Your task to perform on an android device: Clear the cart on walmart. Search for apple airpods on walmart, select the first entry, add it to the cart, then select checkout. Image 0: 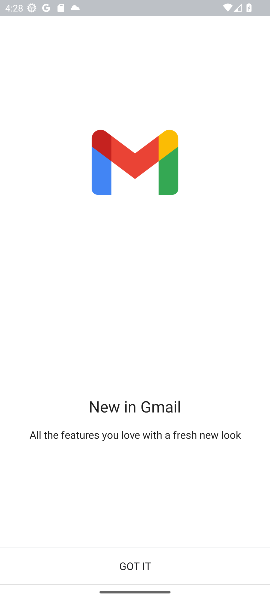
Step 0: press home button
Your task to perform on an android device: Clear the cart on walmart. Search for apple airpods on walmart, select the first entry, add it to the cart, then select checkout. Image 1: 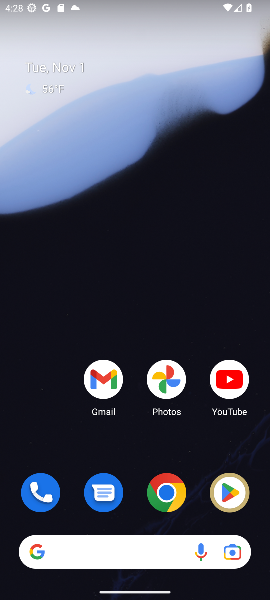
Step 1: click (166, 498)
Your task to perform on an android device: Clear the cart on walmart. Search for apple airpods on walmart, select the first entry, add it to the cart, then select checkout. Image 2: 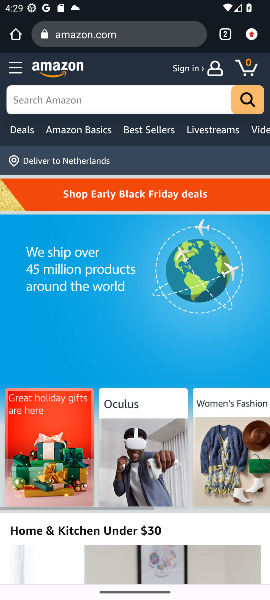
Step 2: click (139, 36)
Your task to perform on an android device: Clear the cart on walmart. Search for apple airpods on walmart, select the first entry, add it to the cart, then select checkout. Image 3: 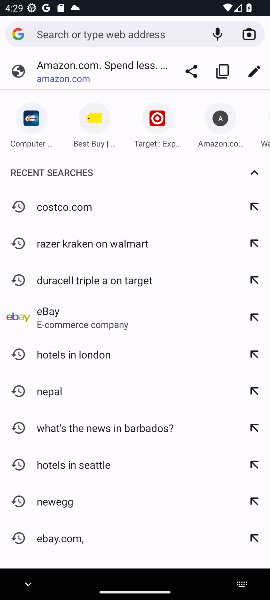
Step 3: type "walmart"
Your task to perform on an android device: Clear the cart on walmart. Search for apple airpods on walmart, select the first entry, add it to the cart, then select checkout. Image 4: 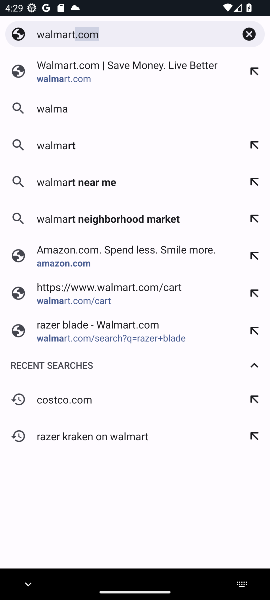
Step 4: type ""
Your task to perform on an android device: Clear the cart on walmart. Search for apple airpods on walmart, select the first entry, add it to the cart, then select checkout. Image 5: 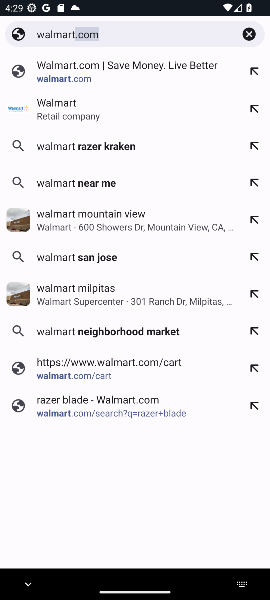
Step 5: press enter
Your task to perform on an android device: Clear the cart on walmart. Search for apple airpods on walmart, select the first entry, add it to the cart, then select checkout. Image 6: 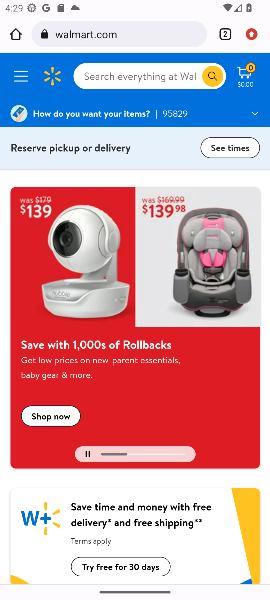
Step 6: click (121, 83)
Your task to perform on an android device: Clear the cart on walmart. Search for apple airpods on walmart, select the first entry, add it to the cart, then select checkout. Image 7: 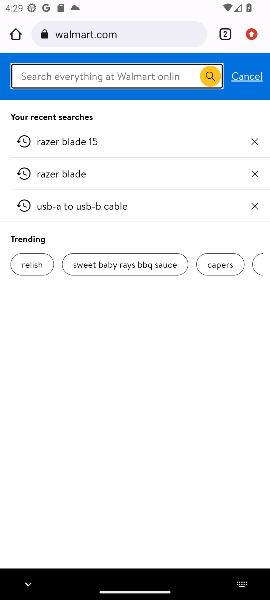
Step 7: click (101, 381)
Your task to perform on an android device: Clear the cart on walmart. Search for apple airpods on walmart, select the first entry, add it to the cart, then select checkout. Image 8: 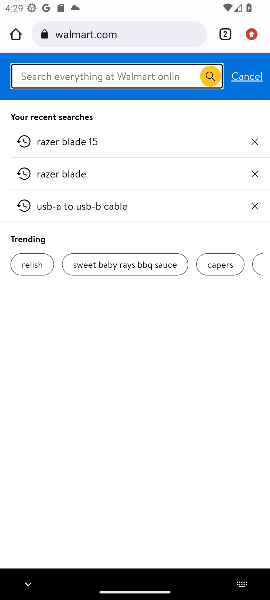
Step 8: type "apple airpods"
Your task to perform on an android device: Clear the cart on walmart. Search for apple airpods on walmart, select the first entry, add it to the cart, then select checkout. Image 9: 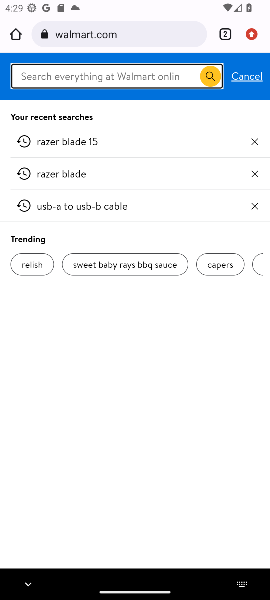
Step 9: type ""
Your task to perform on an android device: Clear the cart on walmart. Search for apple airpods on walmart, select the first entry, add it to the cart, then select checkout. Image 10: 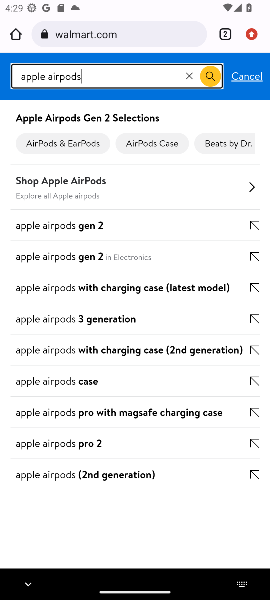
Step 10: click (14, 228)
Your task to perform on an android device: Clear the cart on walmart. Search for apple airpods on walmart, select the first entry, add it to the cart, then select checkout. Image 11: 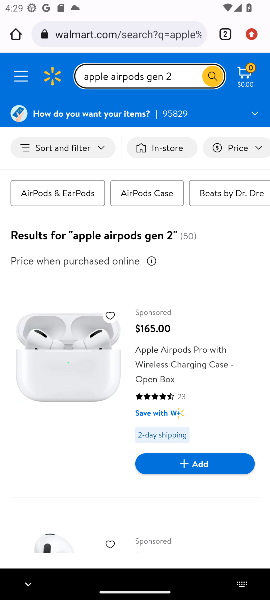
Step 11: click (220, 458)
Your task to perform on an android device: Clear the cart on walmart. Search for apple airpods on walmart, select the first entry, add it to the cart, then select checkout. Image 12: 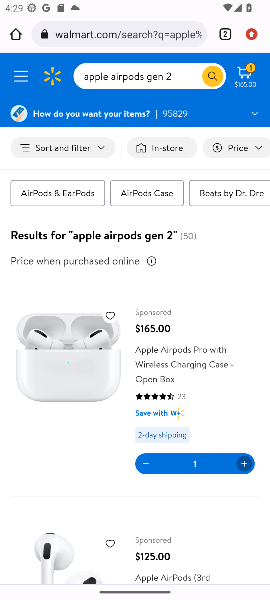
Step 12: click (247, 83)
Your task to perform on an android device: Clear the cart on walmart. Search for apple airpods on walmart, select the first entry, add it to the cart, then select checkout. Image 13: 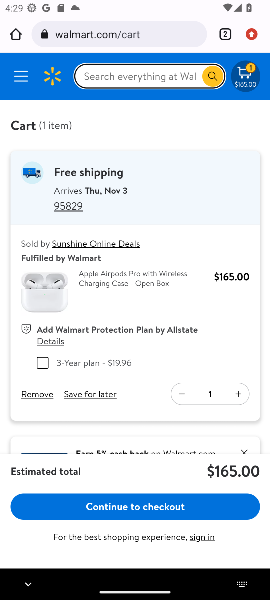
Step 13: drag from (181, 443) to (184, 369)
Your task to perform on an android device: Clear the cart on walmart. Search for apple airpods on walmart, select the first entry, add it to the cart, then select checkout. Image 14: 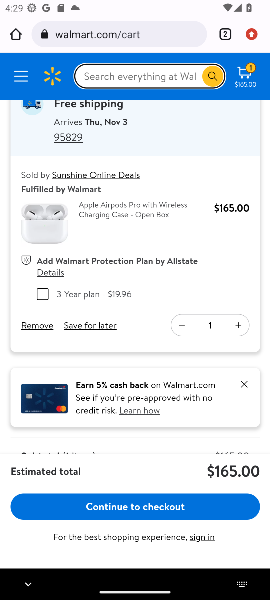
Step 14: click (127, 512)
Your task to perform on an android device: Clear the cart on walmart. Search for apple airpods on walmart, select the first entry, add it to the cart, then select checkout. Image 15: 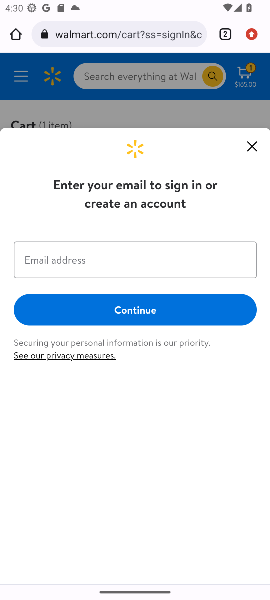
Step 15: click (246, 145)
Your task to perform on an android device: Clear the cart on walmart. Search for apple airpods on walmart, select the first entry, add it to the cart, then select checkout. Image 16: 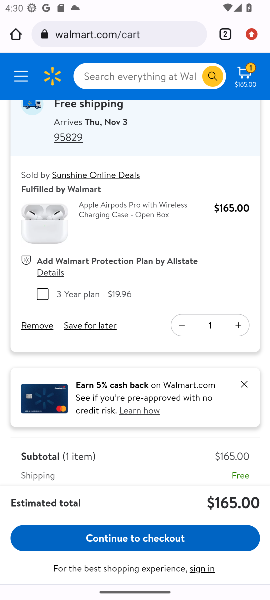
Step 16: click (246, 145)
Your task to perform on an android device: Clear the cart on walmart. Search for apple airpods on walmart, select the first entry, add it to the cart, then select checkout. Image 17: 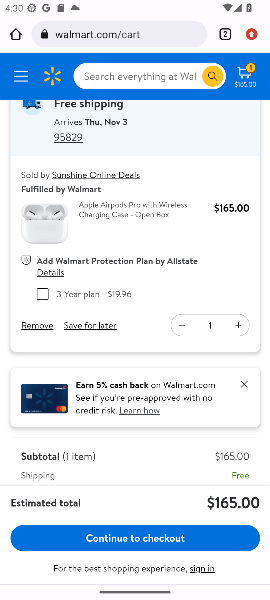
Step 17: drag from (190, 283) to (192, 173)
Your task to perform on an android device: Clear the cart on walmart. Search for apple airpods on walmart, select the first entry, add it to the cart, then select checkout. Image 18: 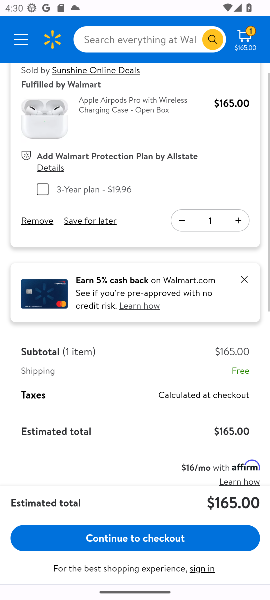
Step 18: click (137, 176)
Your task to perform on an android device: Clear the cart on walmart. Search for apple airpods on walmart, select the first entry, add it to the cart, then select checkout. Image 19: 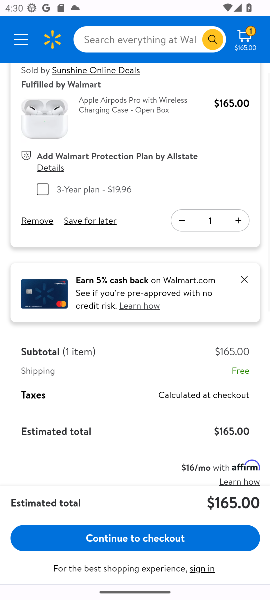
Step 19: drag from (116, 345) to (135, 148)
Your task to perform on an android device: Clear the cart on walmart. Search for apple airpods on walmart, select the first entry, add it to the cart, then select checkout. Image 20: 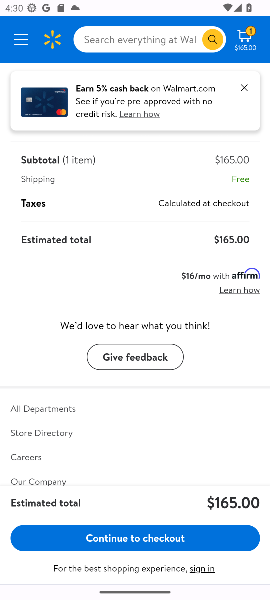
Step 20: click (127, 126)
Your task to perform on an android device: Clear the cart on walmart. Search for apple airpods on walmart, select the first entry, add it to the cart, then select checkout. Image 21: 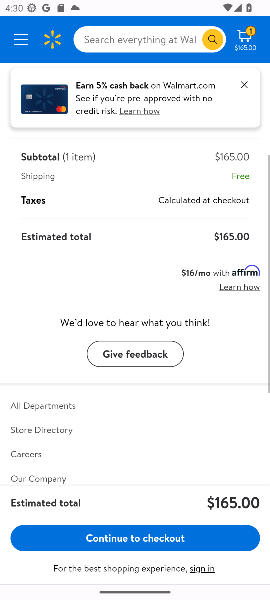
Step 21: drag from (114, 298) to (108, 123)
Your task to perform on an android device: Clear the cart on walmart. Search for apple airpods on walmart, select the first entry, add it to the cart, then select checkout. Image 22: 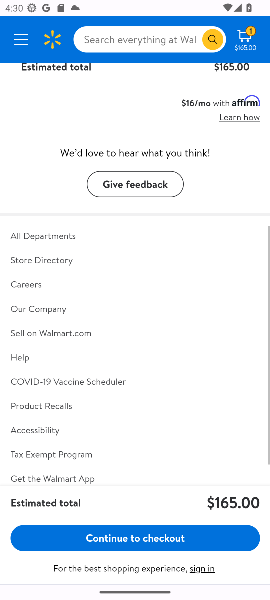
Step 22: drag from (81, 353) to (88, 162)
Your task to perform on an android device: Clear the cart on walmart. Search for apple airpods on walmart, select the first entry, add it to the cart, then select checkout. Image 23: 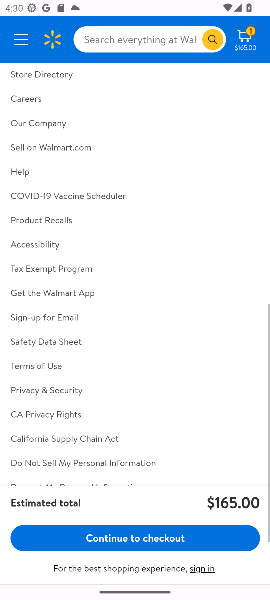
Step 23: drag from (86, 323) to (107, 155)
Your task to perform on an android device: Clear the cart on walmart. Search for apple airpods on walmart, select the first entry, add it to the cart, then select checkout. Image 24: 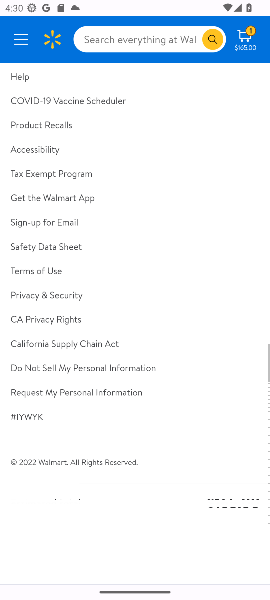
Step 24: click (87, 533)
Your task to perform on an android device: Clear the cart on walmart. Search for apple airpods on walmart, select the first entry, add it to the cart, then select checkout. Image 25: 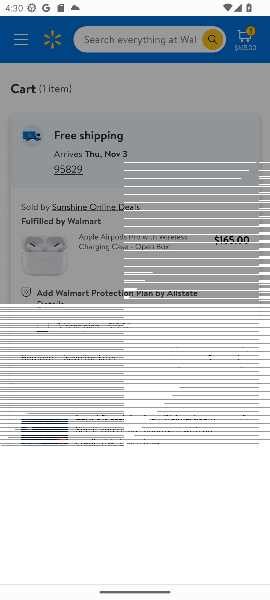
Step 25: drag from (76, 502) to (115, 184)
Your task to perform on an android device: Clear the cart on walmart. Search for apple airpods on walmart, select the first entry, add it to the cart, then select checkout. Image 26: 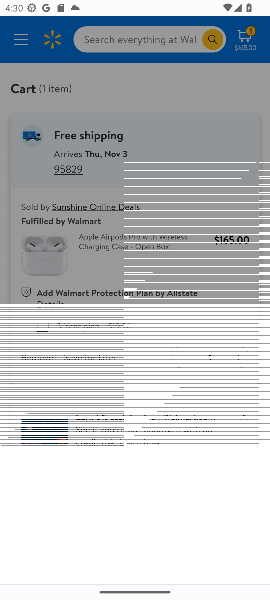
Step 26: drag from (147, 399) to (150, 156)
Your task to perform on an android device: Clear the cart on walmart. Search for apple airpods on walmart, select the first entry, add it to the cart, then select checkout. Image 27: 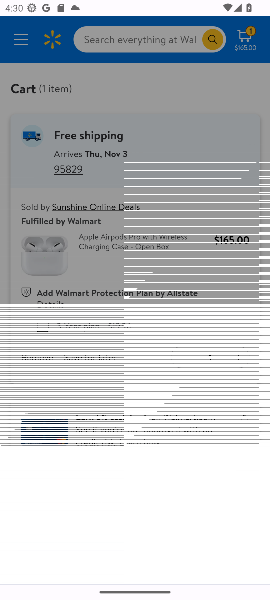
Step 27: drag from (155, 283) to (164, 190)
Your task to perform on an android device: Clear the cart on walmart. Search for apple airpods on walmart, select the first entry, add it to the cart, then select checkout. Image 28: 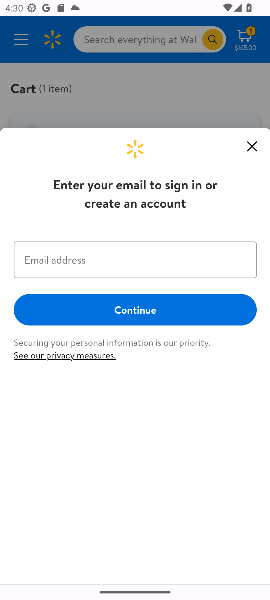
Step 28: drag from (133, 316) to (152, 153)
Your task to perform on an android device: Clear the cart on walmart. Search for apple airpods on walmart, select the first entry, add it to the cart, then select checkout. Image 29: 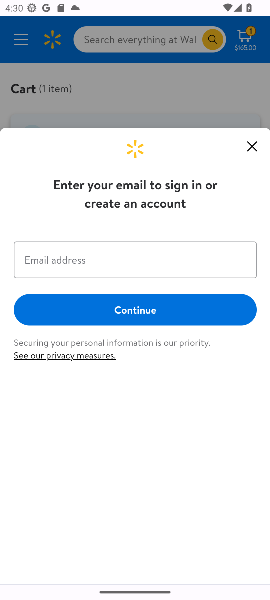
Step 29: click (249, 149)
Your task to perform on an android device: Clear the cart on walmart. Search for apple airpods on walmart, select the first entry, add it to the cart, then select checkout. Image 30: 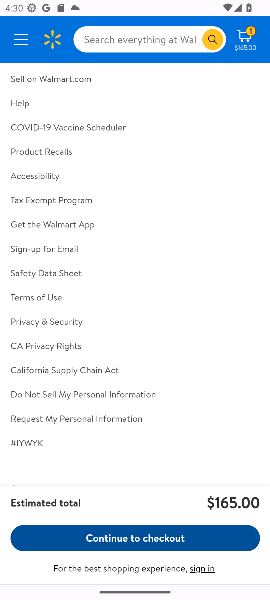
Step 30: drag from (216, 270) to (245, 154)
Your task to perform on an android device: Clear the cart on walmart. Search for apple airpods on walmart, select the first entry, add it to the cart, then select checkout. Image 31: 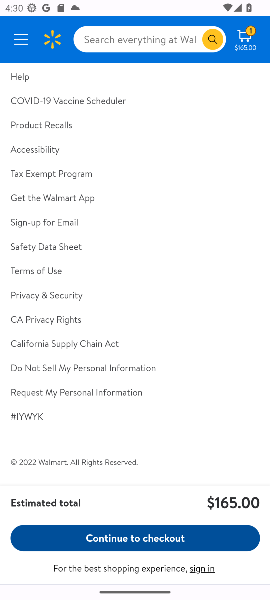
Step 31: press back button
Your task to perform on an android device: Clear the cart on walmart. Search for apple airpods on walmart, select the first entry, add it to the cart, then select checkout. Image 32: 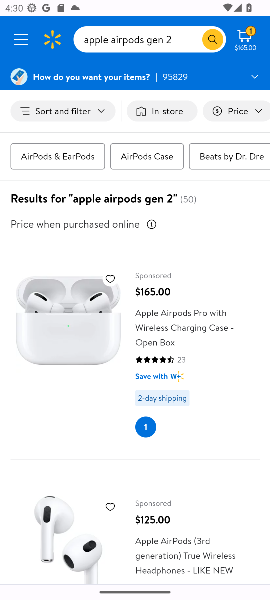
Step 32: drag from (164, 381) to (186, 171)
Your task to perform on an android device: Clear the cart on walmart. Search for apple airpods on walmart, select the first entry, add it to the cart, then select checkout. Image 33: 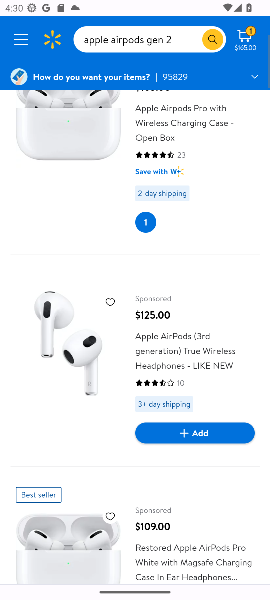
Step 33: drag from (139, 388) to (160, 123)
Your task to perform on an android device: Clear the cart on walmart. Search for apple airpods on walmart, select the first entry, add it to the cart, then select checkout. Image 34: 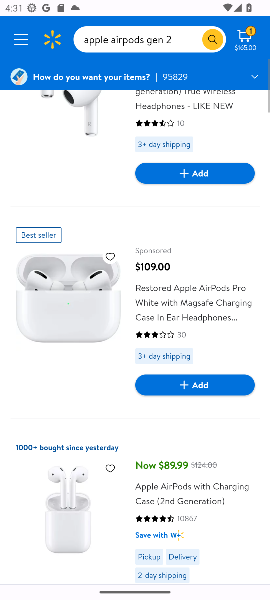
Step 34: drag from (145, 304) to (145, 129)
Your task to perform on an android device: Clear the cart on walmart. Search for apple airpods on walmart, select the first entry, add it to the cart, then select checkout. Image 35: 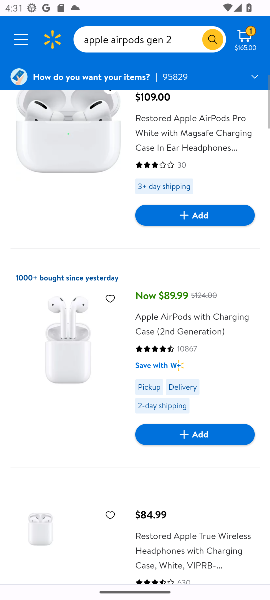
Step 35: drag from (144, 343) to (147, 203)
Your task to perform on an android device: Clear the cart on walmart. Search for apple airpods on walmart, select the first entry, add it to the cart, then select checkout. Image 36: 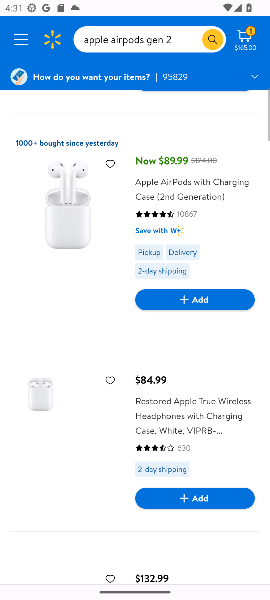
Step 36: drag from (137, 371) to (141, 176)
Your task to perform on an android device: Clear the cart on walmart. Search for apple airpods on walmart, select the first entry, add it to the cart, then select checkout. Image 37: 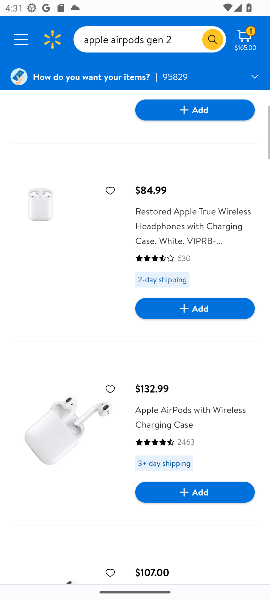
Step 37: drag from (124, 333) to (128, 148)
Your task to perform on an android device: Clear the cart on walmart. Search for apple airpods on walmart, select the first entry, add it to the cart, then select checkout. Image 38: 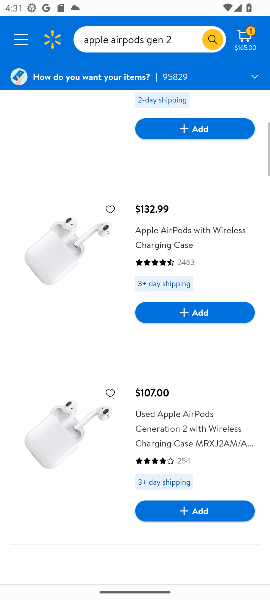
Step 38: drag from (130, 377) to (144, 175)
Your task to perform on an android device: Clear the cart on walmart. Search for apple airpods on walmart, select the first entry, add it to the cart, then select checkout. Image 39: 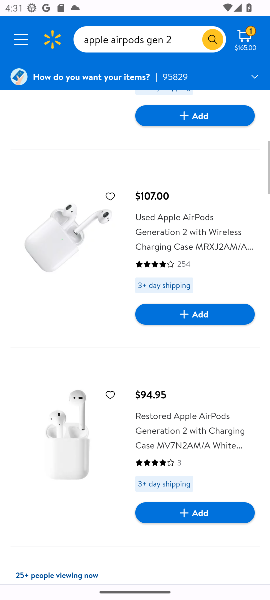
Step 39: drag from (136, 369) to (139, 166)
Your task to perform on an android device: Clear the cart on walmart. Search for apple airpods on walmart, select the first entry, add it to the cart, then select checkout. Image 40: 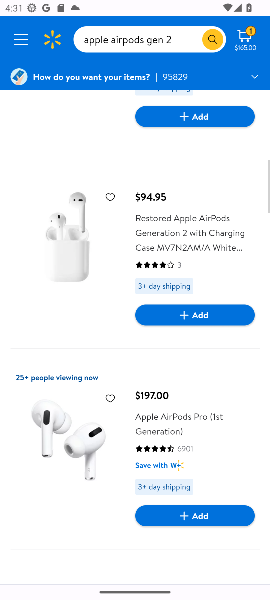
Step 40: click (122, 185)
Your task to perform on an android device: Clear the cart on walmart. Search for apple airpods on walmart, select the first entry, add it to the cart, then select checkout. Image 41: 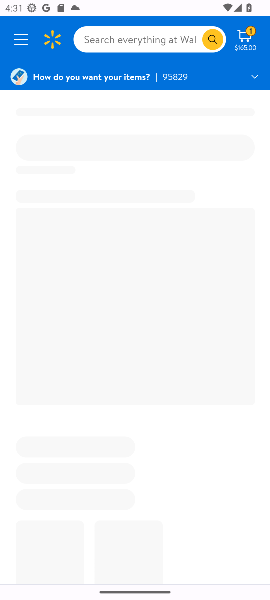
Step 41: click (241, 37)
Your task to perform on an android device: Clear the cart on walmart. Search for apple airpods on walmart, select the first entry, add it to the cart, then select checkout. Image 42: 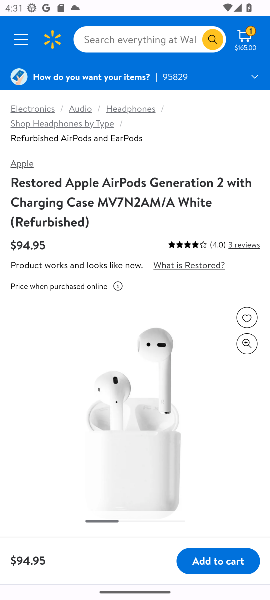
Step 42: task complete